Your task to perform on an android device: Open settings on Google Maps Image 0: 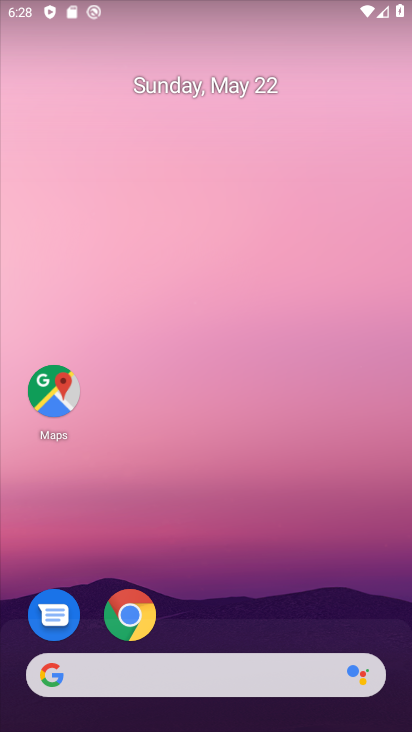
Step 0: click (48, 402)
Your task to perform on an android device: Open settings on Google Maps Image 1: 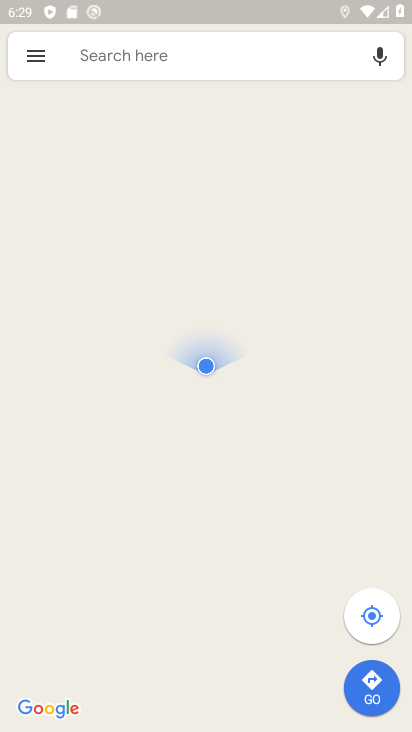
Step 1: click (31, 59)
Your task to perform on an android device: Open settings on Google Maps Image 2: 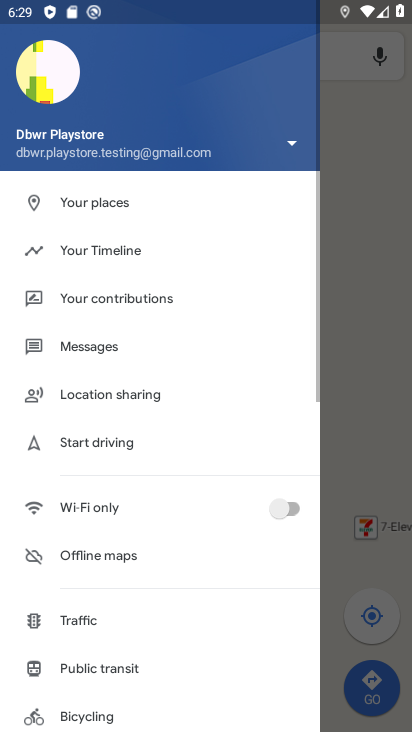
Step 2: drag from (172, 583) to (180, 243)
Your task to perform on an android device: Open settings on Google Maps Image 3: 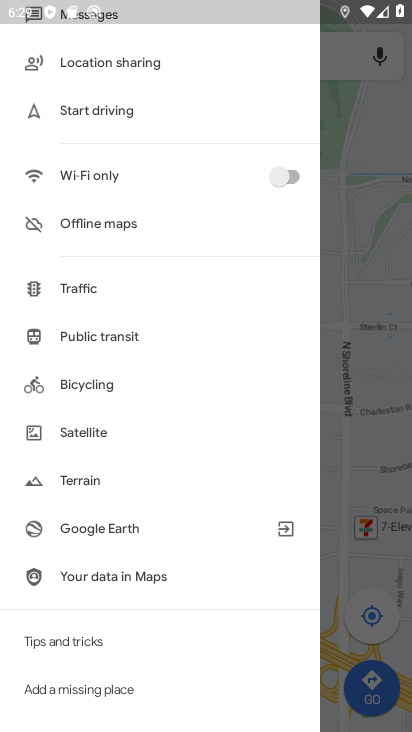
Step 3: drag from (141, 646) to (140, 293)
Your task to perform on an android device: Open settings on Google Maps Image 4: 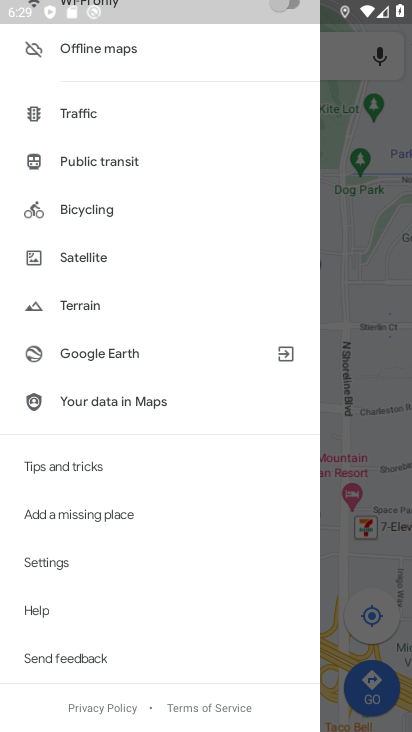
Step 4: click (44, 561)
Your task to perform on an android device: Open settings on Google Maps Image 5: 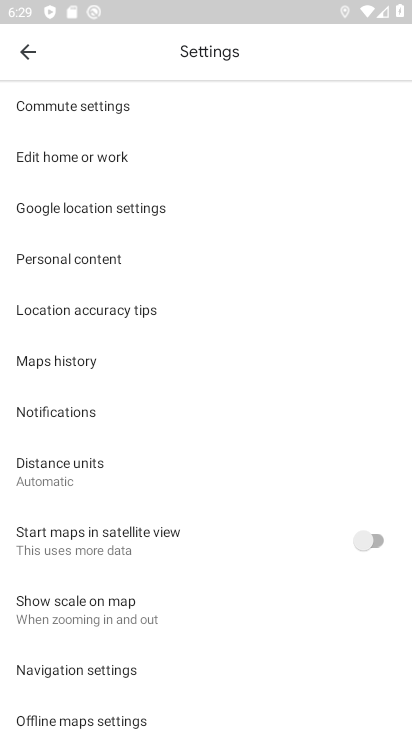
Step 5: task complete